Your task to perform on an android device: turn on the 24-hour format for clock Image 0: 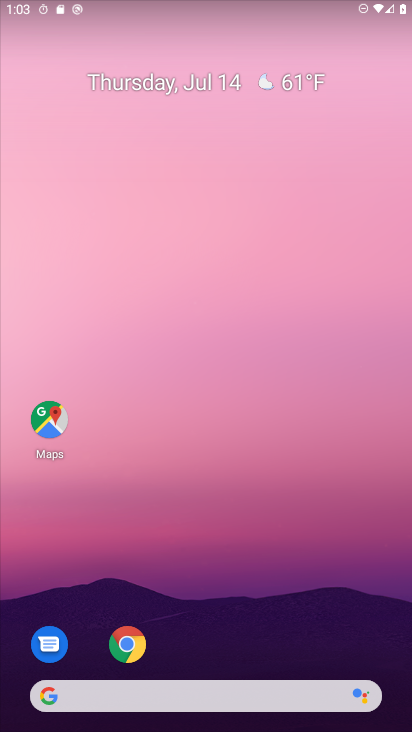
Step 0: drag from (211, 520) to (264, 72)
Your task to perform on an android device: turn on the 24-hour format for clock Image 1: 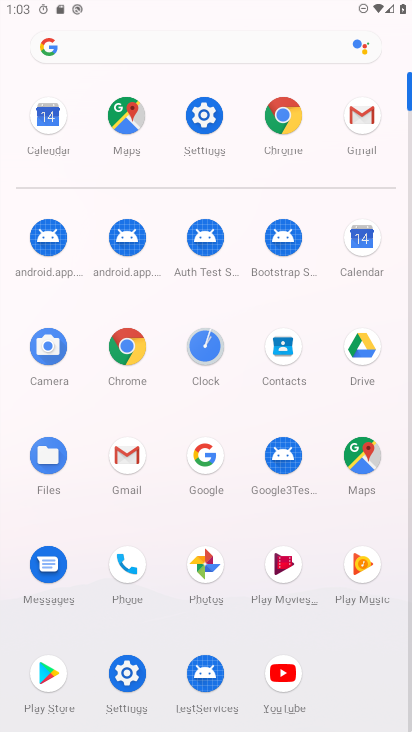
Step 1: click (200, 356)
Your task to perform on an android device: turn on the 24-hour format for clock Image 2: 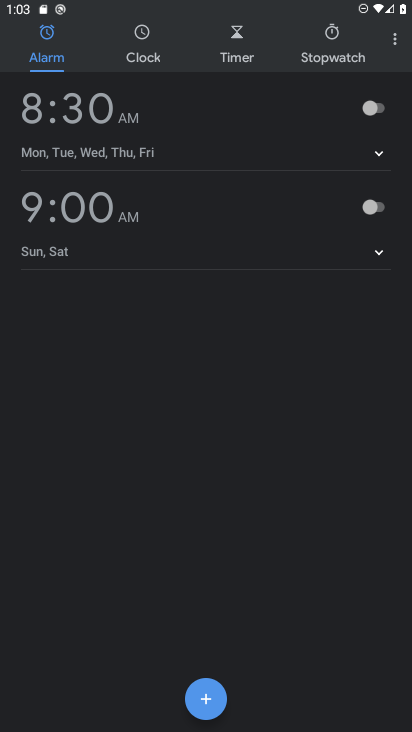
Step 2: click (400, 38)
Your task to perform on an android device: turn on the 24-hour format for clock Image 3: 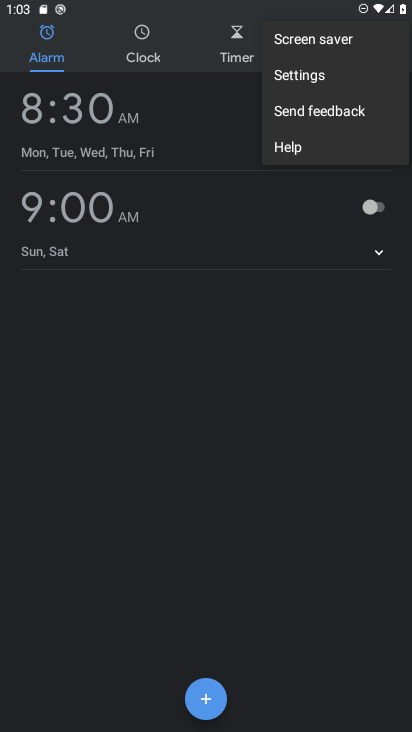
Step 3: click (316, 82)
Your task to perform on an android device: turn on the 24-hour format for clock Image 4: 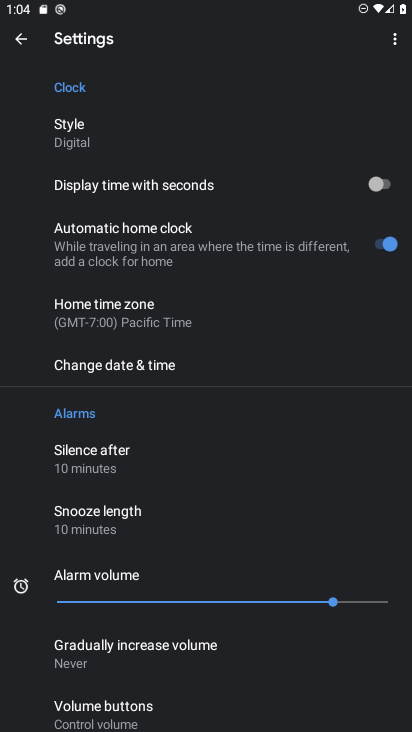
Step 4: click (156, 360)
Your task to perform on an android device: turn on the 24-hour format for clock Image 5: 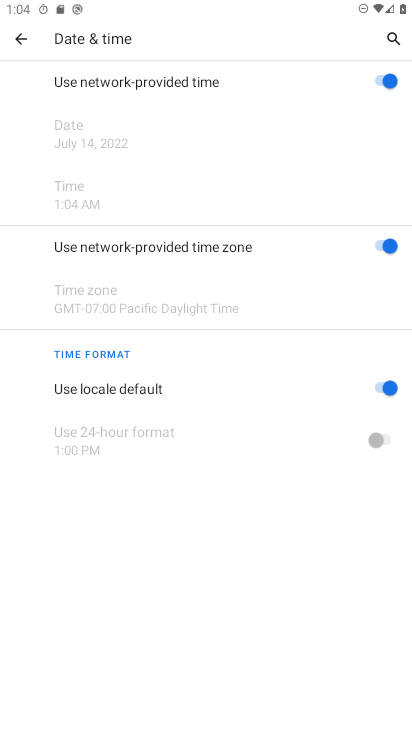
Step 5: click (380, 387)
Your task to perform on an android device: turn on the 24-hour format for clock Image 6: 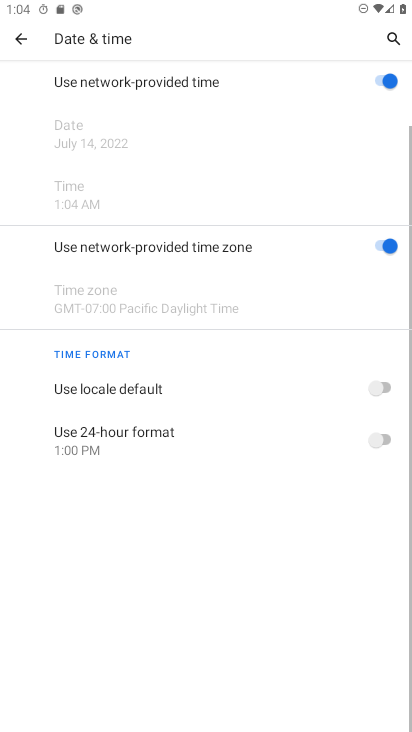
Step 6: click (387, 442)
Your task to perform on an android device: turn on the 24-hour format for clock Image 7: 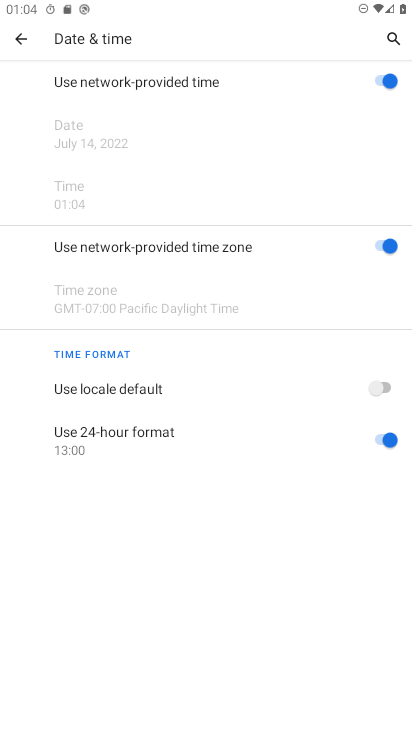
Step 7: task complete